Your task to perform on an android device: Search for a custom-made wallet on Etsy Image 0: 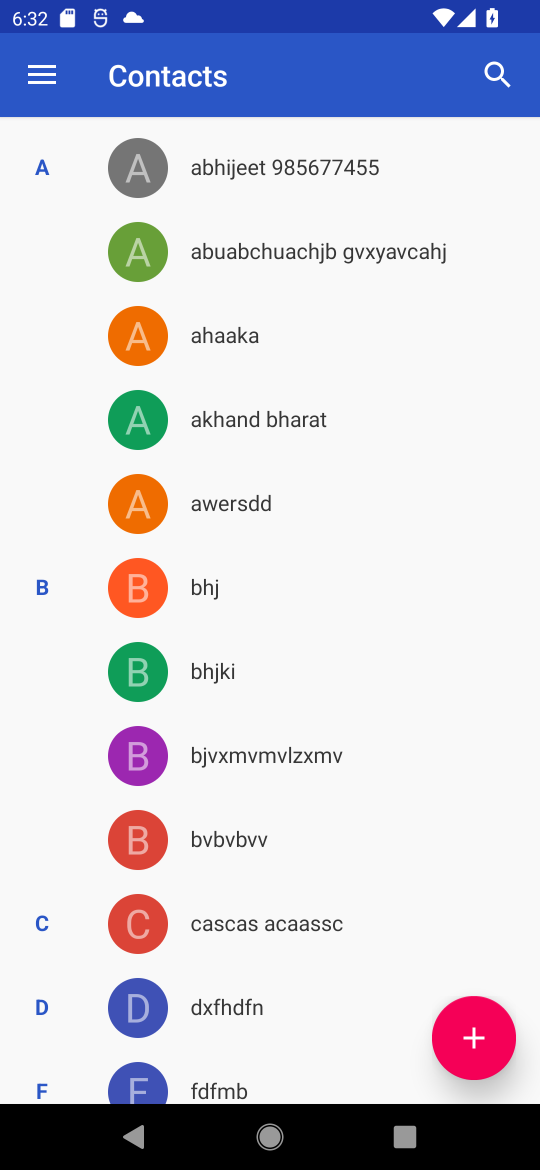
Step 0: press home button
Your task to perform on an android device: Search for a custom-made wallet on Etsy Image 1: 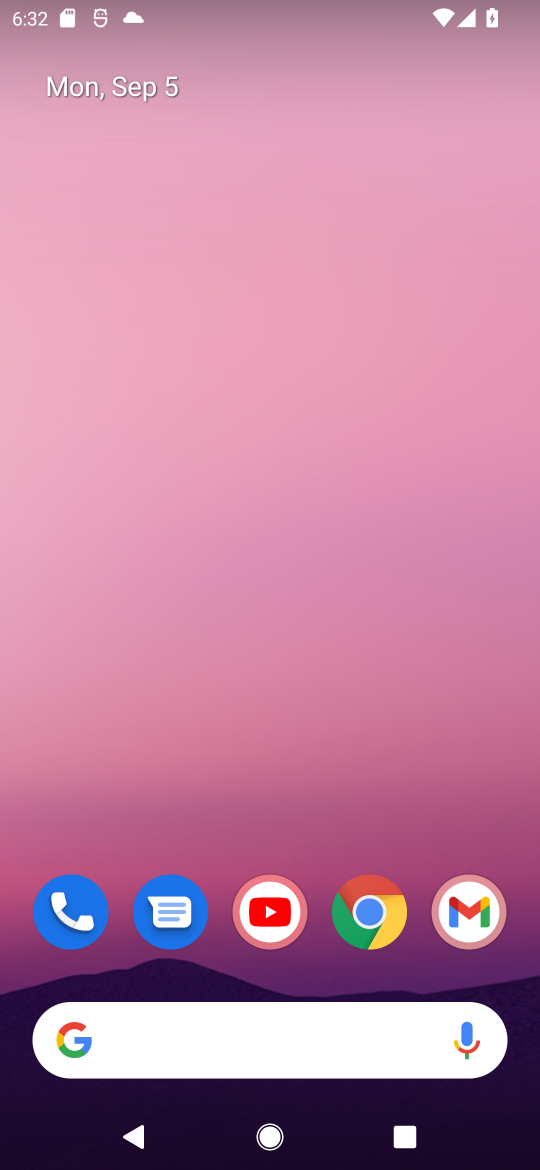
Step 1: click (382, 907)
Your task to perform on an android device: Search for a custom-made wallet on Etsy Image 2: 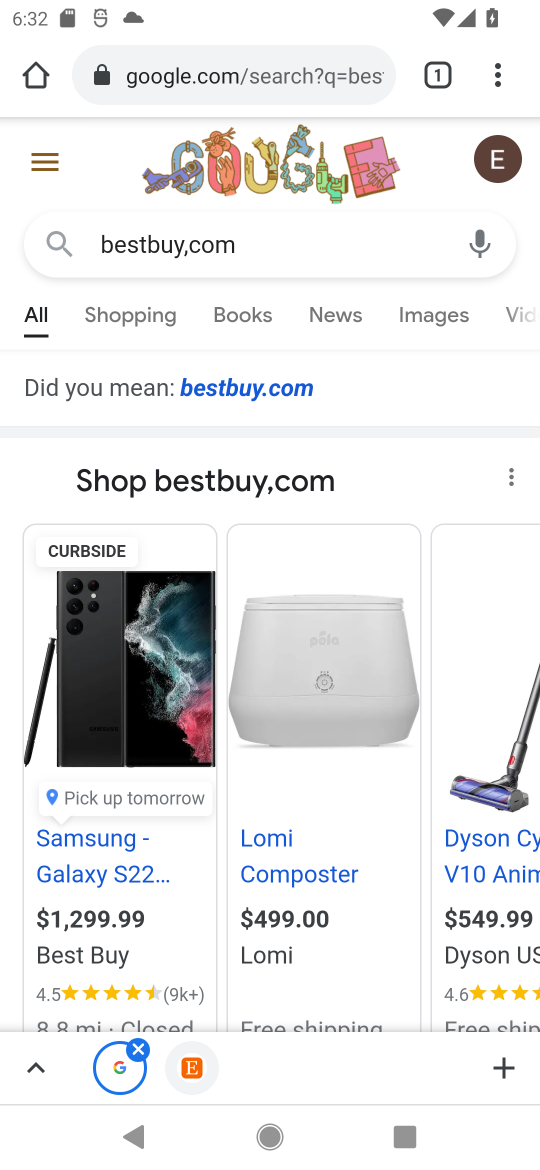
Step 2: click (258, 63)
Your task to perform on an android device: Search for a custom-made wallet on Etsy Image 3: 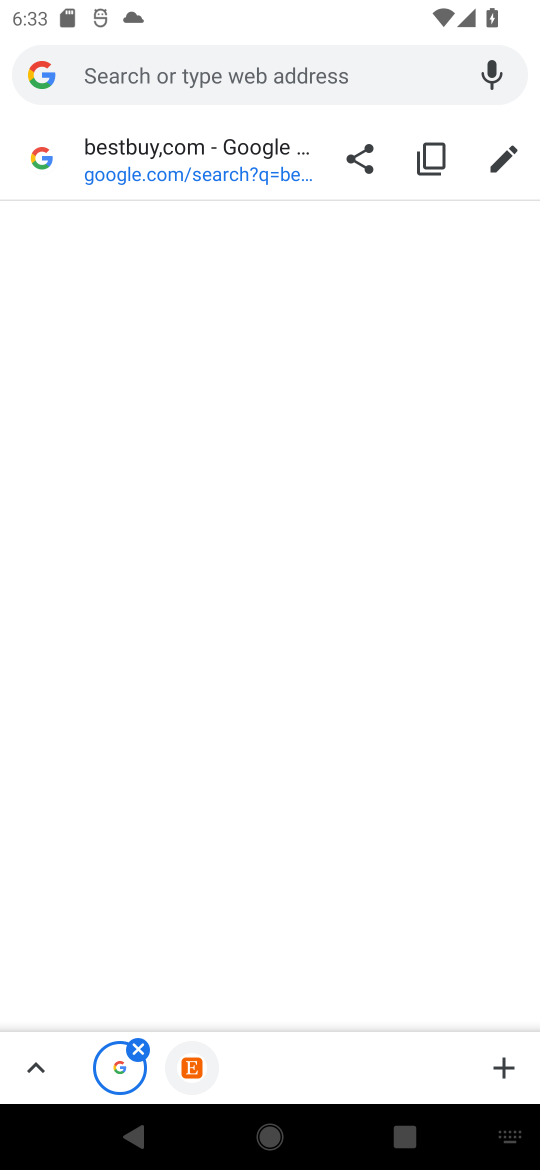
Step 3: type "Etsy"
Your task to perform on an android device: Search for a custom-made wallet on Etsy Image 4: 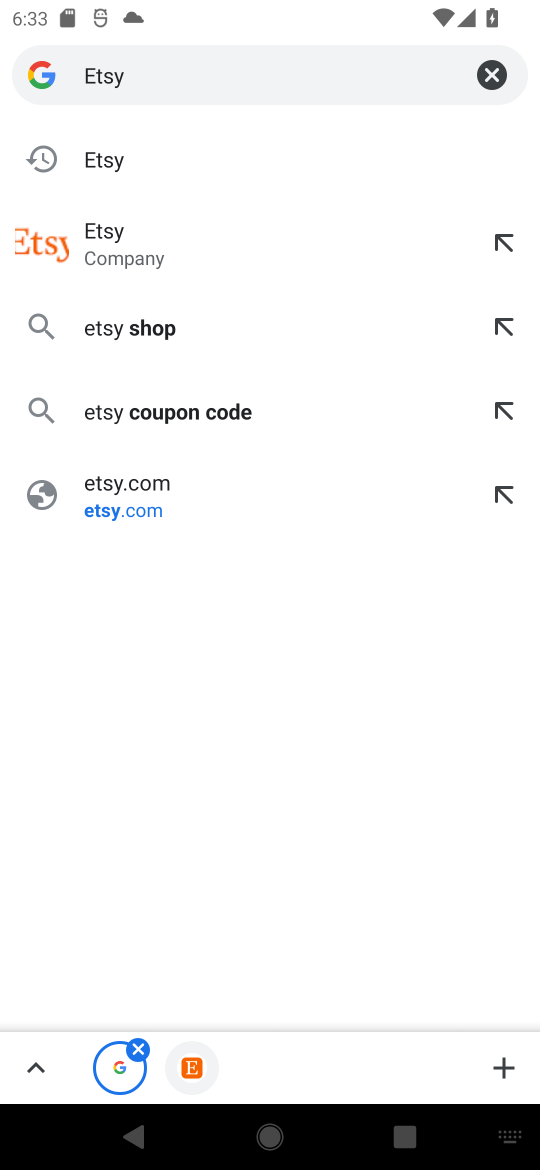
Step 4: click (132, 153)
Your task to perform on an android device: Search for a custom-made wallet on Etsy Image 5: 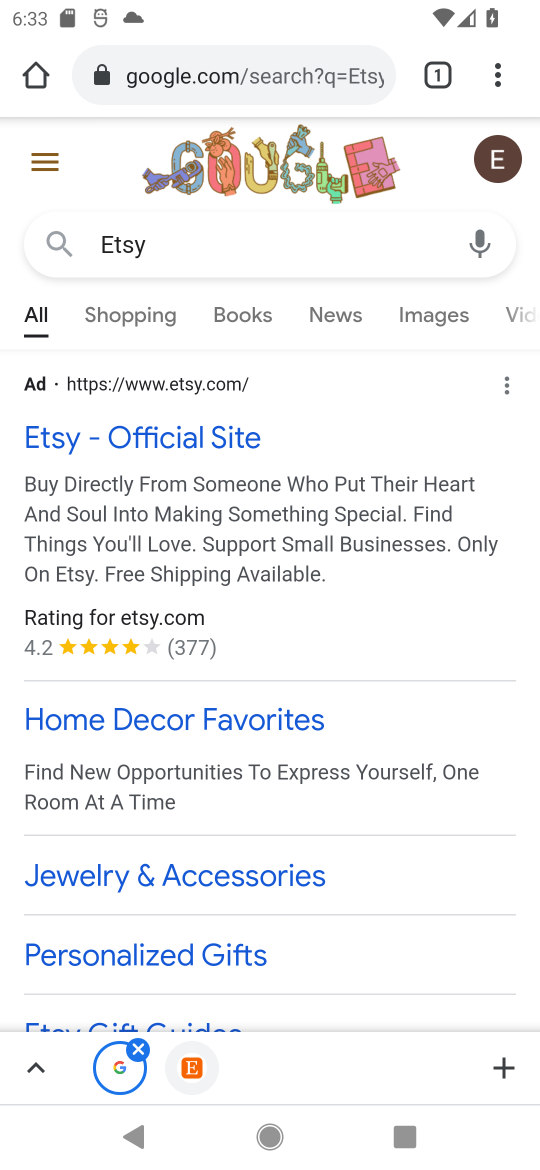
Step 5: click (112, 421)
Your task to perform on an android device: Search for a custom-made wallet on Etsy Image 6: 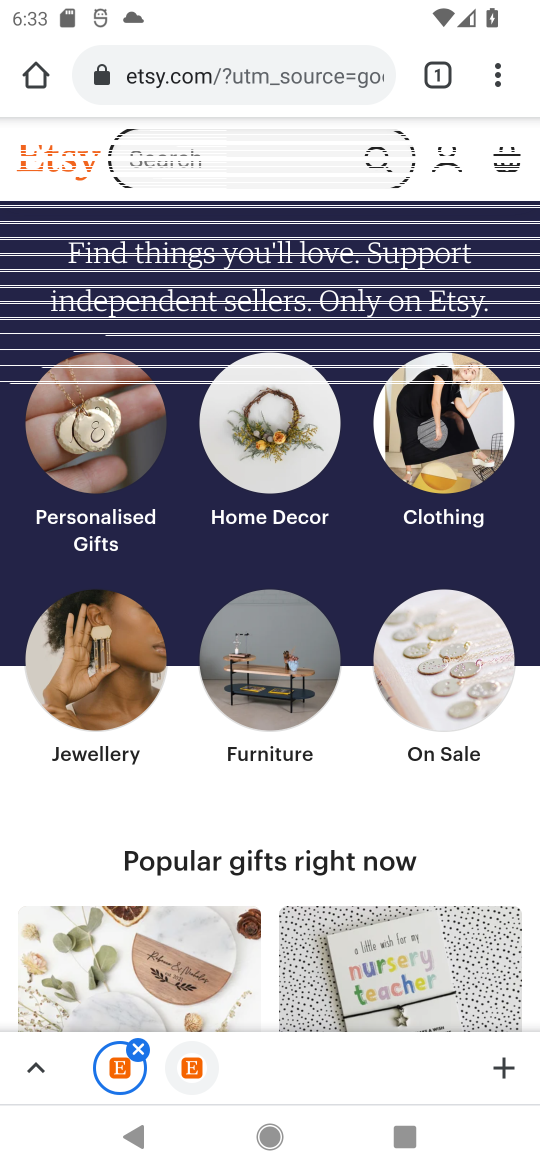
Step 6: click (255, 168)
Your task to perform on an android device: Search for a custom-made wallet on Etsy Image 7: 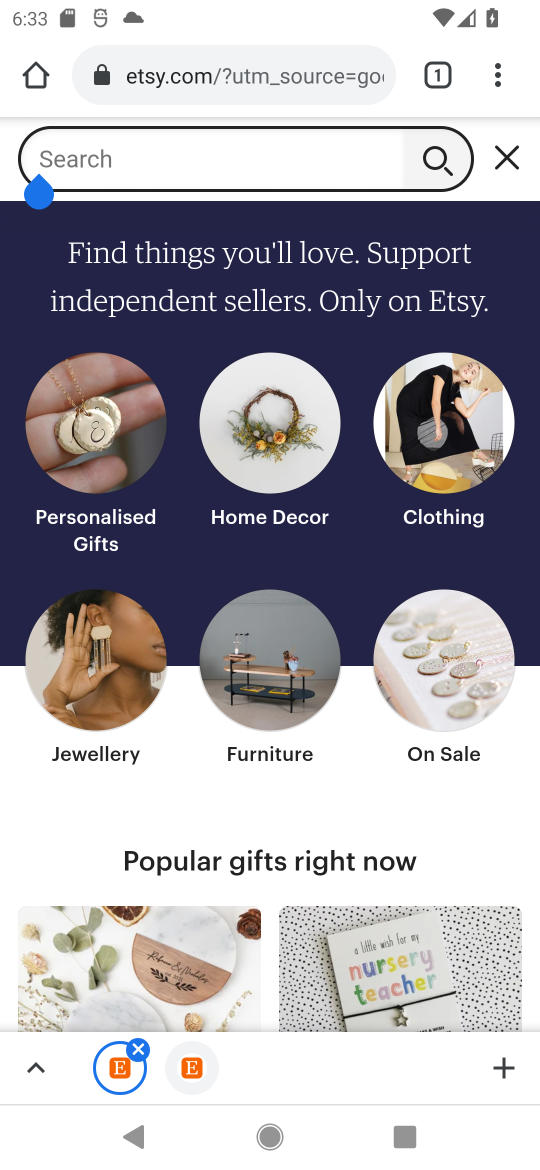
Step 7: type "custom made wallet"
Your task to perform on an android device: Search for a custom-made wallet on Etsy Image 8: 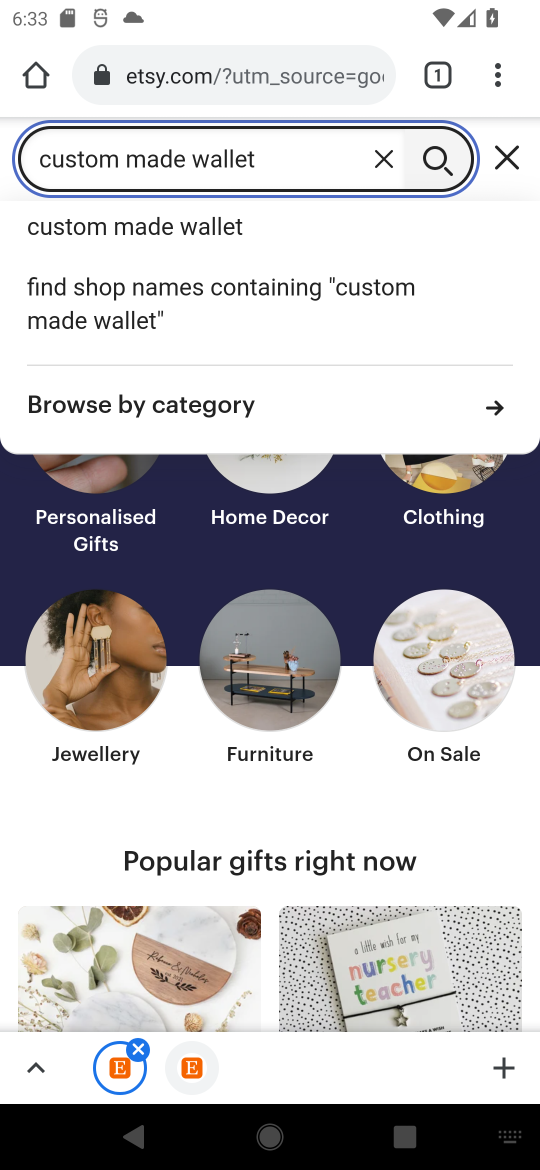
Step 8: click (207, 226)
Your task to perform on an android device: Search for a custom-made wallet on Etsy Image 9: 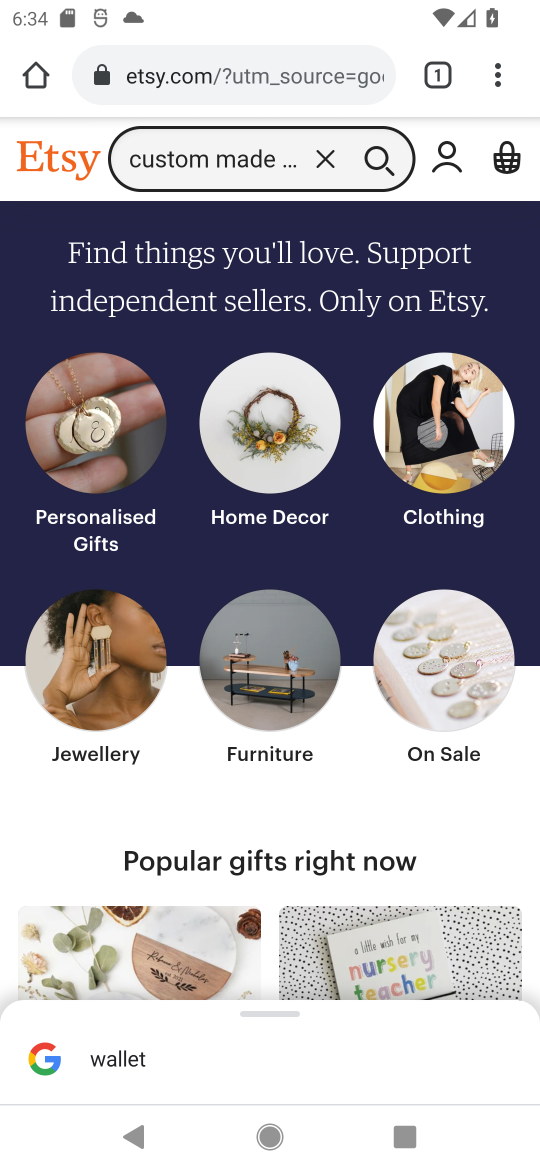
Step 9: click (372, 158)
Your task to perform on an android device: Search for a custom-made wallet on Etsy Image 10: 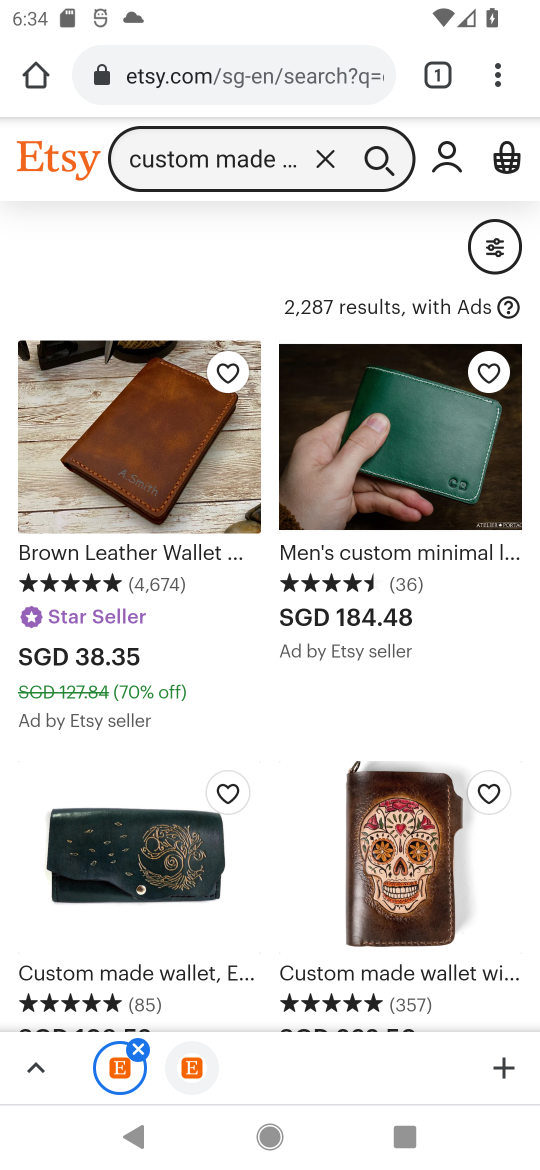
Step 10: task complete